Your task to perform on an android device: Go to Wikipedia Image 0: 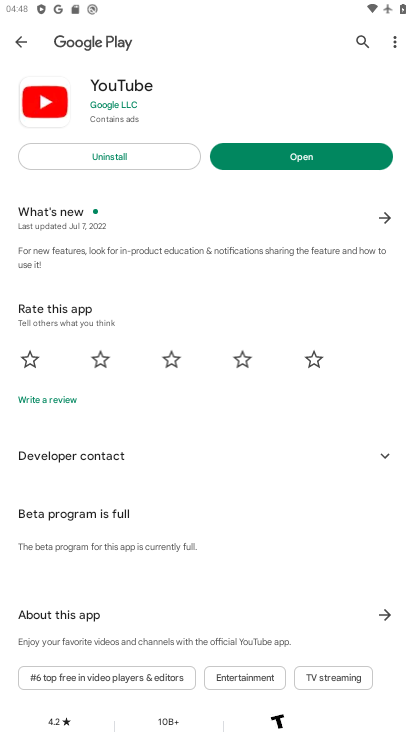
Step 0: press home button
Your task to perform on an android device: Go to Wikipedia Image 1: 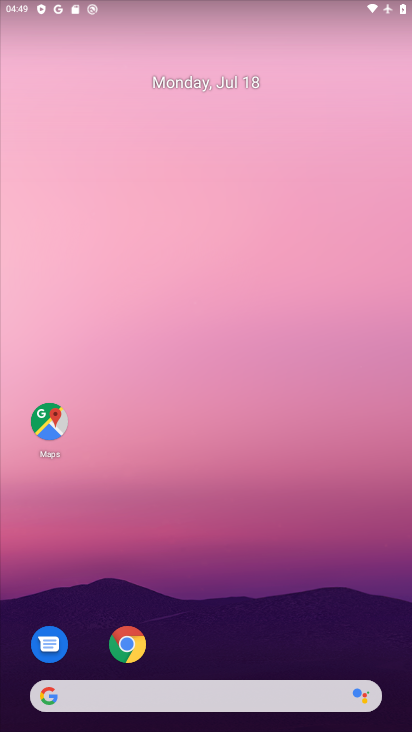
Step 1: click (53, 694)
Your task to perform on an android device: Go to Wikipedia Image 2: 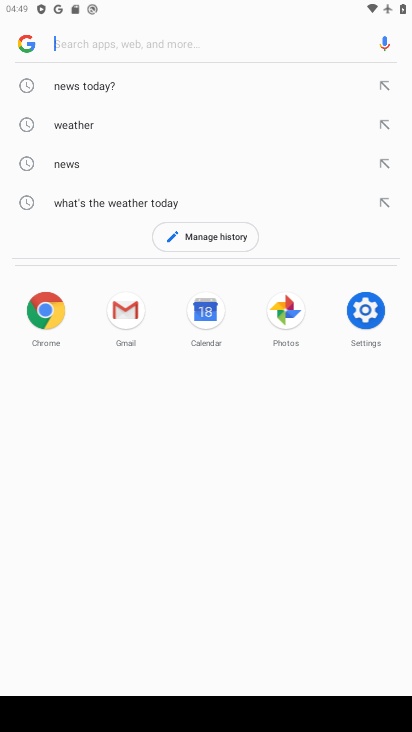
Step 2: type "Wikipedia"
Your task to perform on an android device: Go to Wikipedia Image 3: 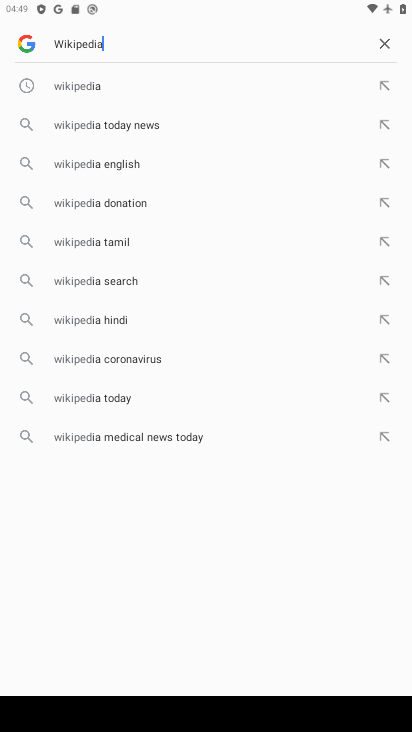
Step 3: press enter
Your task to perform on an android device: Go to Wikipedia Image 4: 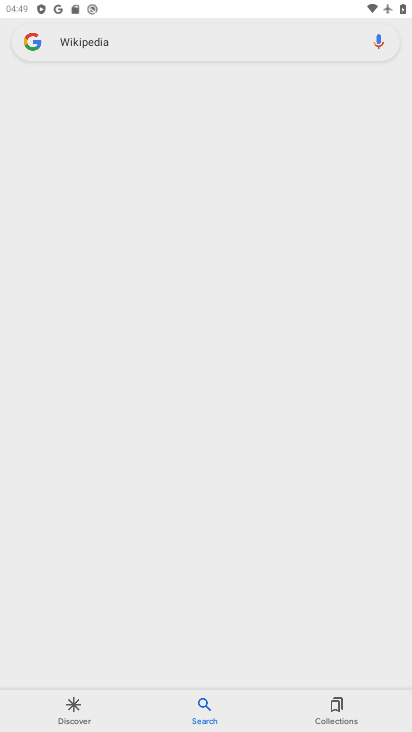
Step 4: click (85, 88)
Your task to perform on an android device: Go to Wikipedia Image 5: 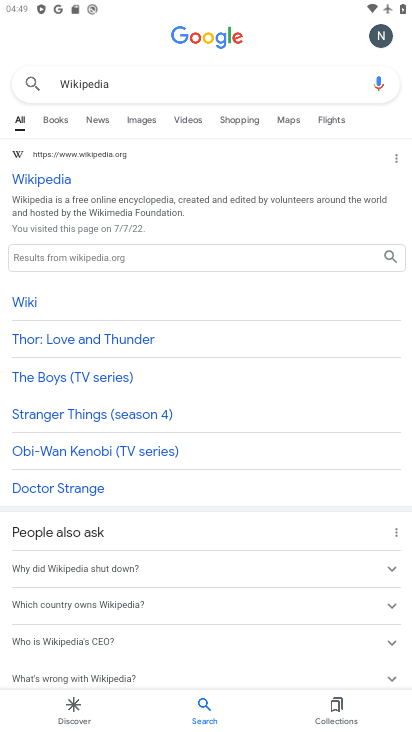
Step 5: click (36, 183)
Your task to perform on an android device: Go to Wikipedia Image 6: 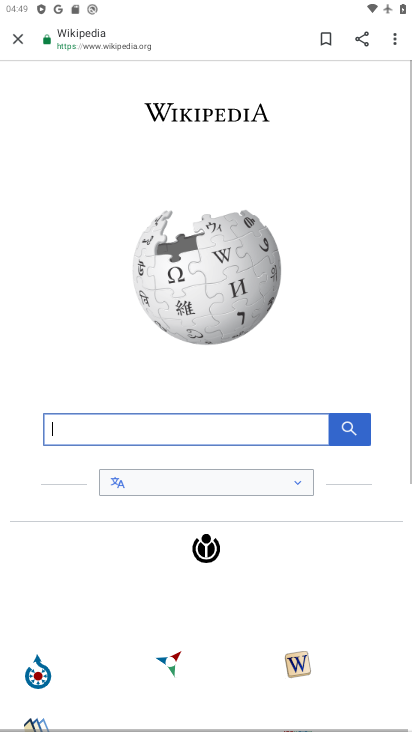
Step 6: task complete